Your task to perform on an android device: visit the assistant section in the google photos Image 0: 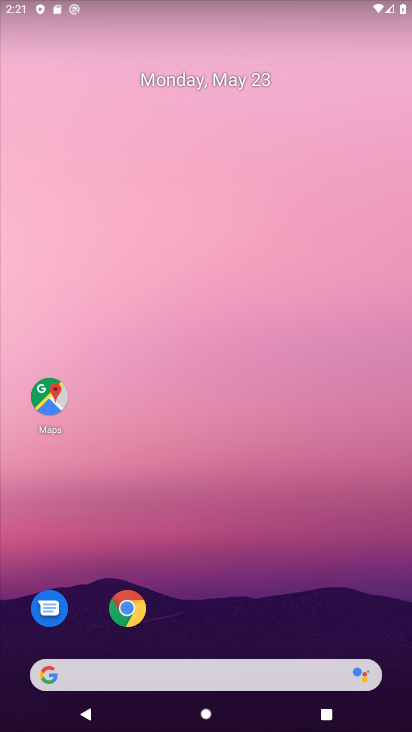
Step 0: drag from (199, 621) to (238, 6)
Your task to perform on an android device: visit the assistant section in the google photos Image 1: 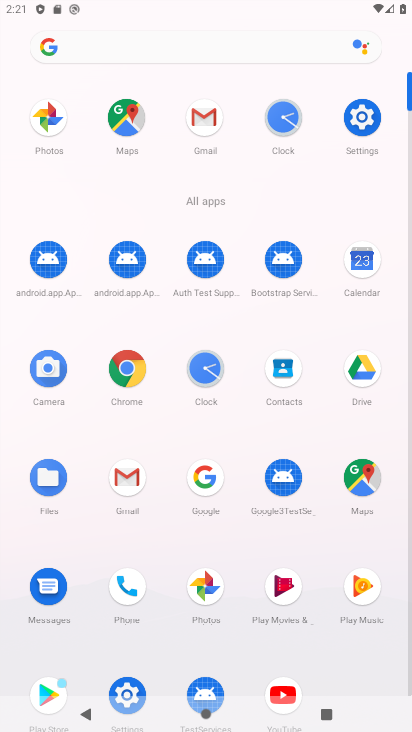
Step 1: click (218, 591)
Your task to perform on an android device: visit the assistant section in the google photos Image 2: 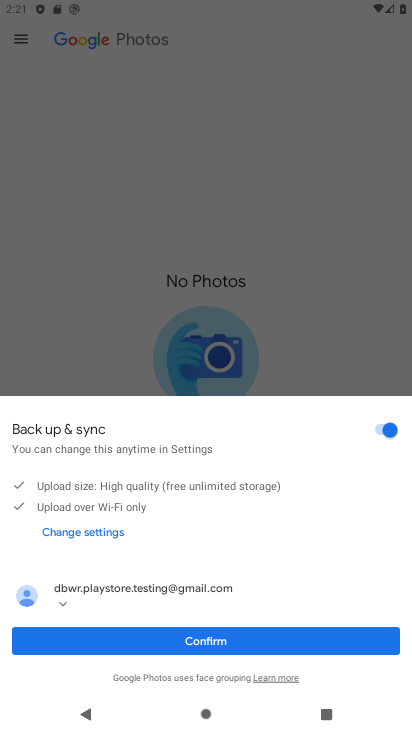
Step 2: click (202, 644)
Your task to perform on an android device: visit the assistant section in the google photos Image 3: 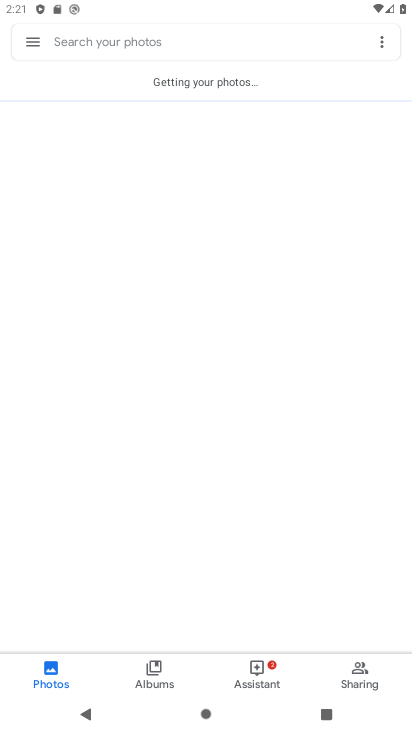
Step 3: click (259, 675)
Your task to perform on an android device: visit the assistant section in the google photos Image 4: 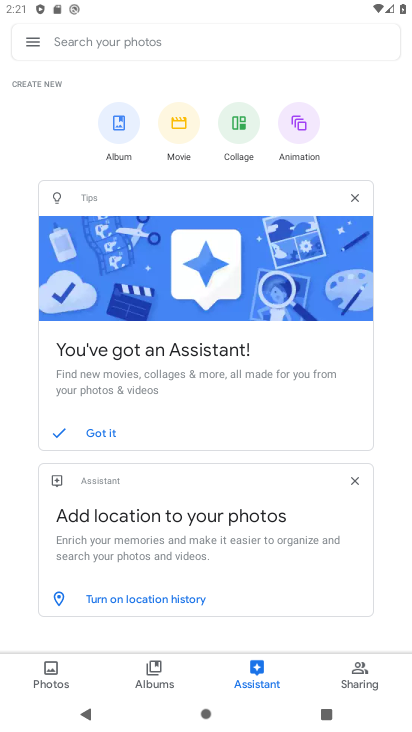
Step 4: task complete